Your task to perform on an android device: Open the calendar app, open the side menu, and click the "Day" option Image 0: 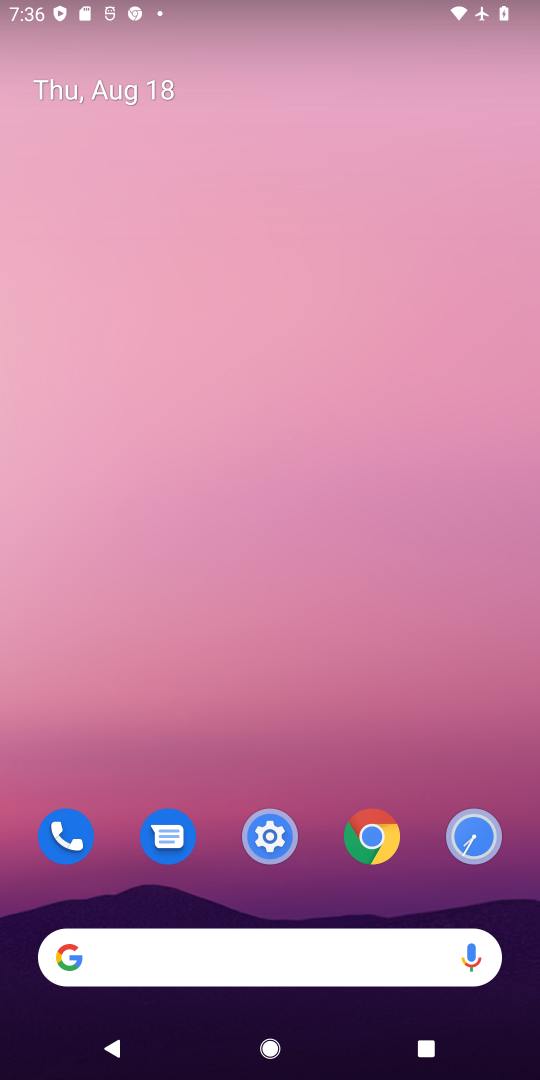
Step 0: drag from (357, 460) to (397, 60)
Your task to perform on an android device: Open the calendar app, open the side menu, and click the "Day" option Image 1: 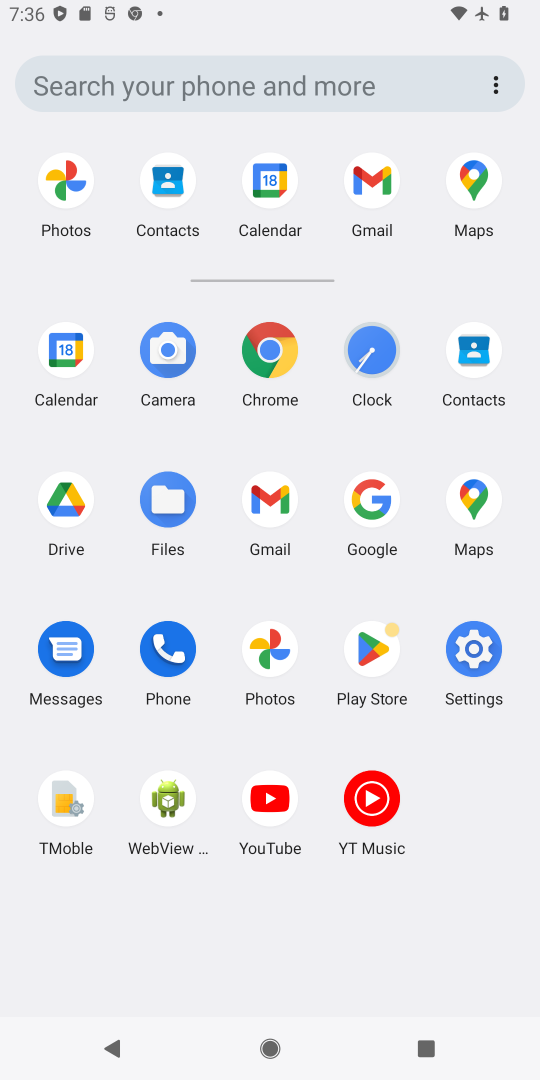
Step 1: click (68, 362)
Your task to perform on an android device: Open the calendar app, open the side menu, and click the "Day" option Image 2: 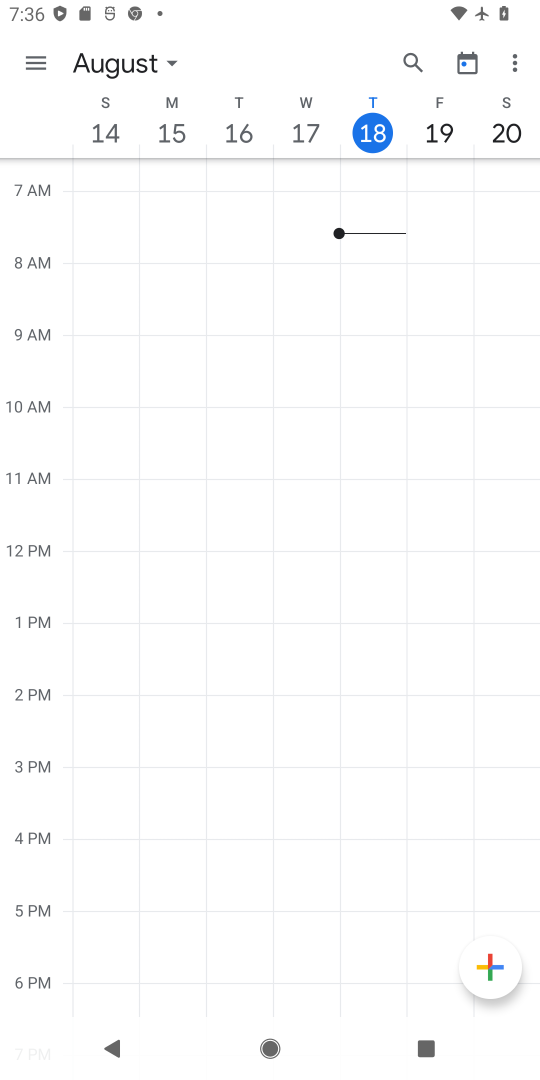
Step 2: click (42, 61)
Your task to perform on an android device: Open the calendar app, open the side menu, and click the "Day" option Image 3: 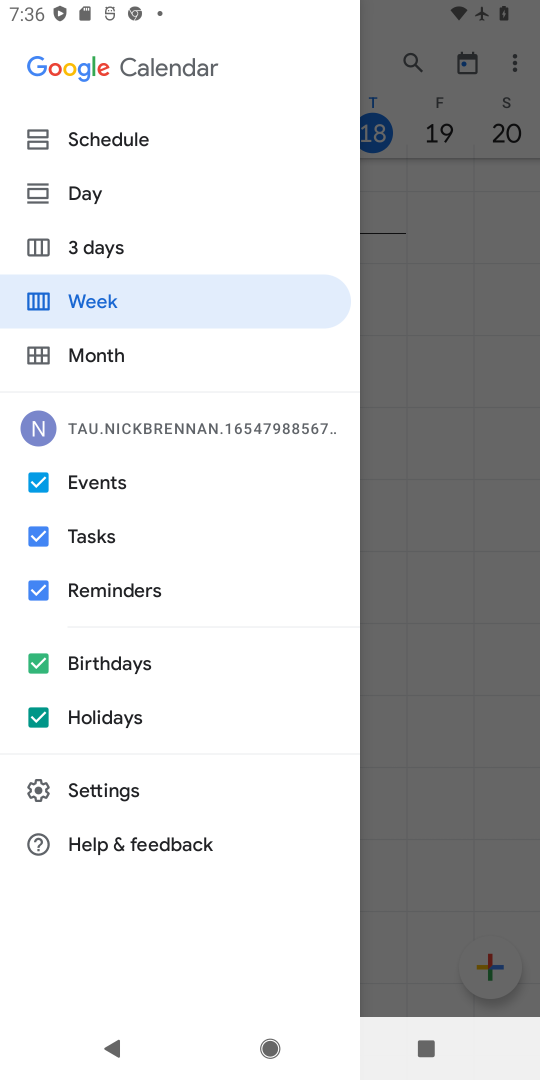
Step 3: click (111, 188)
Your task to perform on an android device: Open the calendar app, open the side menu, and click the "Day" option Image 4: 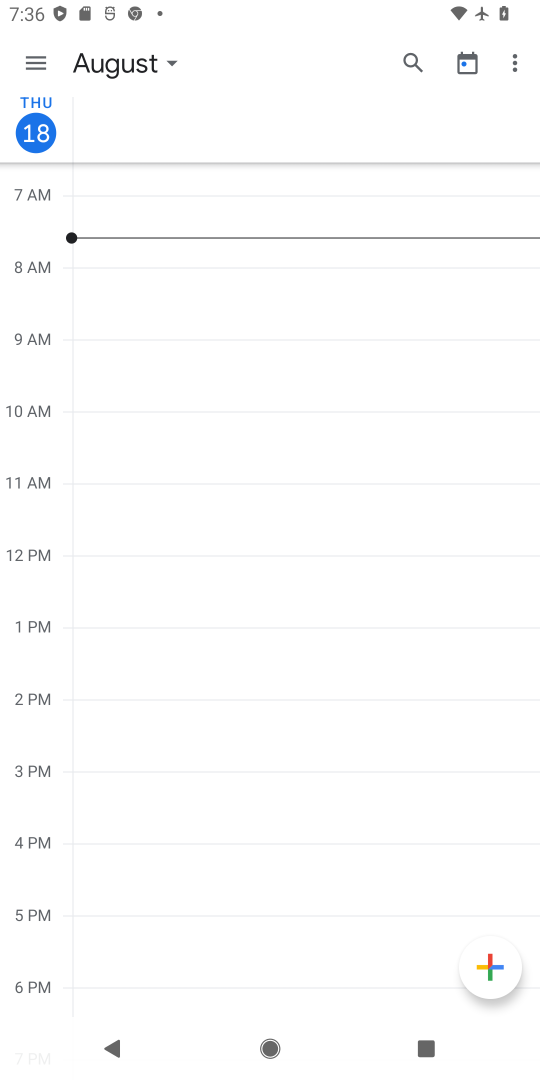
Step 4: task complete